Your task to perform on an android device: turn on showing notifications on the lock screen Image 0: 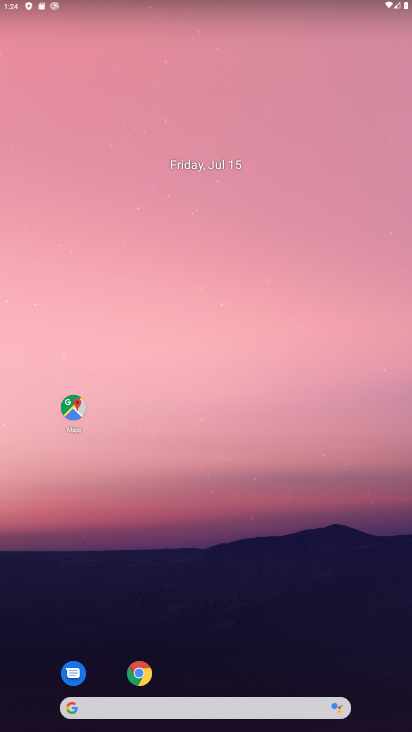
Step 0: drag from (270, 659) to (352, 24)
Your task to perform on an android device: turn on showing notifications on the lock screen Image 1: 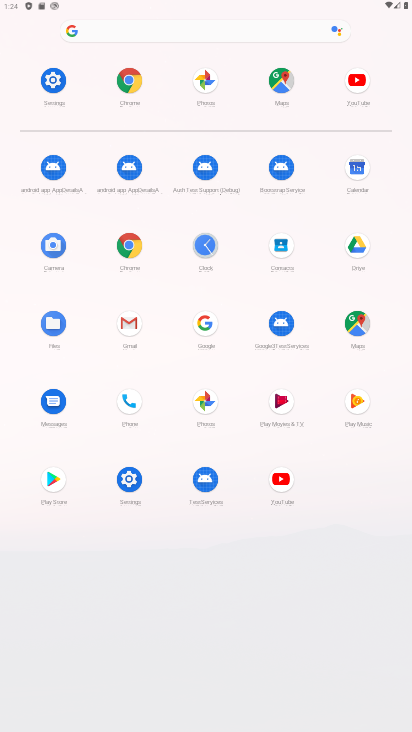
Step 1: click (38, 69)
Your task to perform on an android device: turn on showing notifications on the lock screen Image 2: 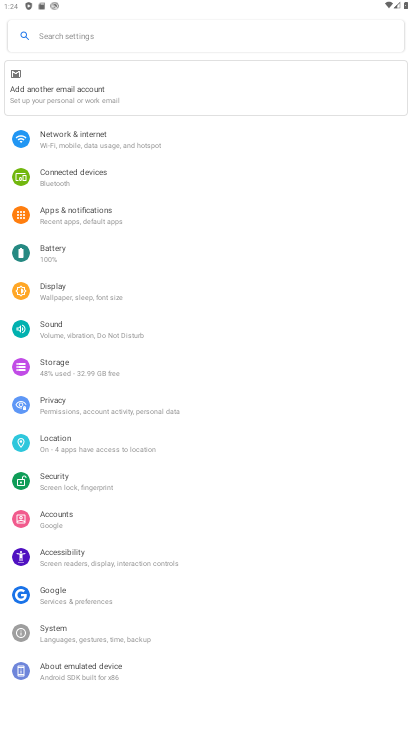
Step 2: click (87, 219)
Your task to perform on an android device: turn on showing notifications on the lock screen Image 3: 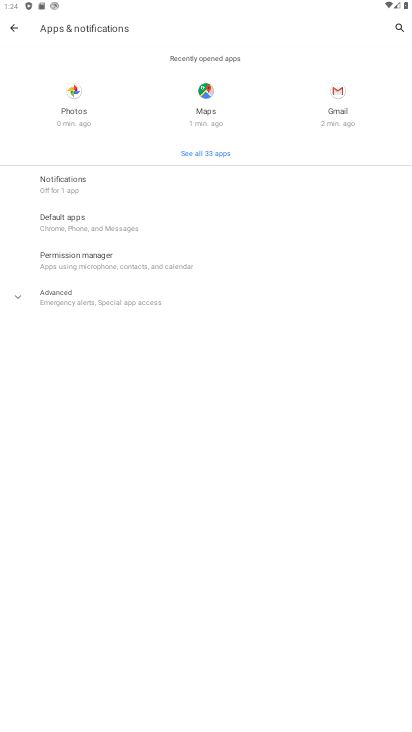
Step 3: click (61, 189)
Your task to perform on an android device: turn on showing notifications on the lock screen Image 4: 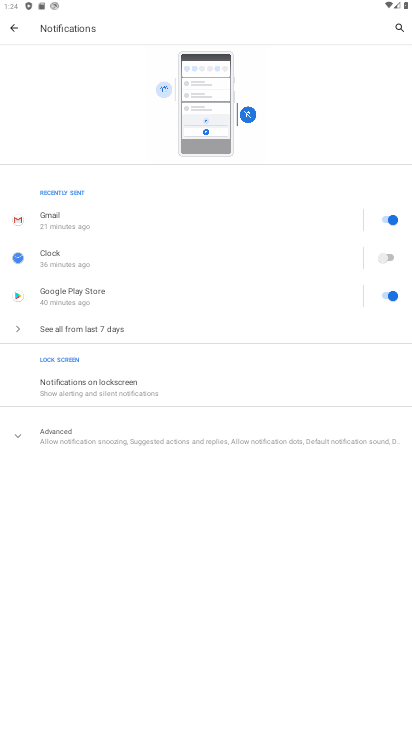
Step 4: click (111, 387)
Your task to perform on an android device: turn on showing notifications on the lock screen Image 5: 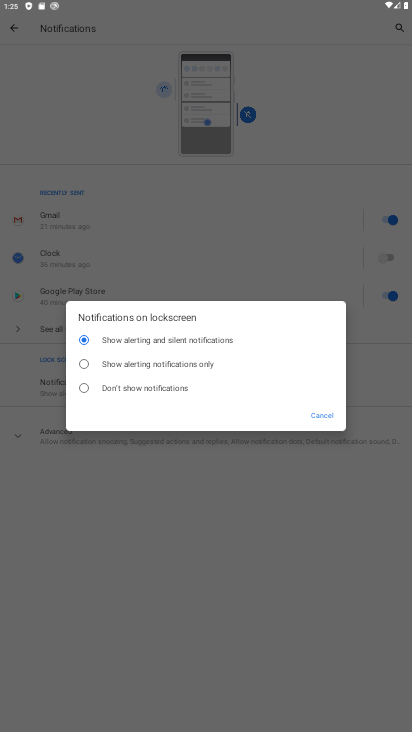
Step 5: click (201, 364)
Your task to perform on an android device: turn on showing notifications on the lock screen Image 6: 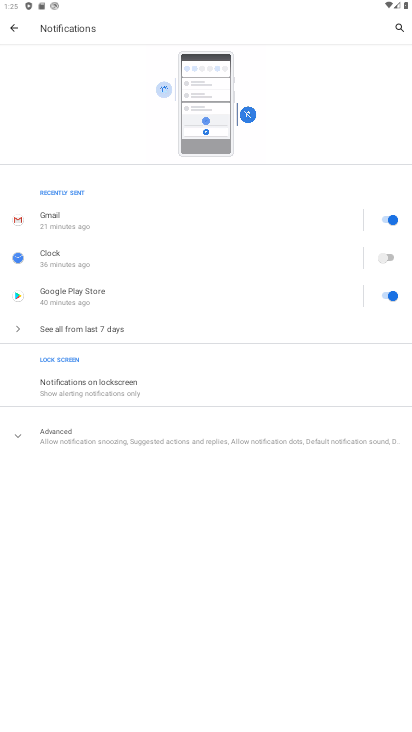
Step 6: task complete